Your task to perform on an android device: What's the weather going to be tomorrow? Image 0: 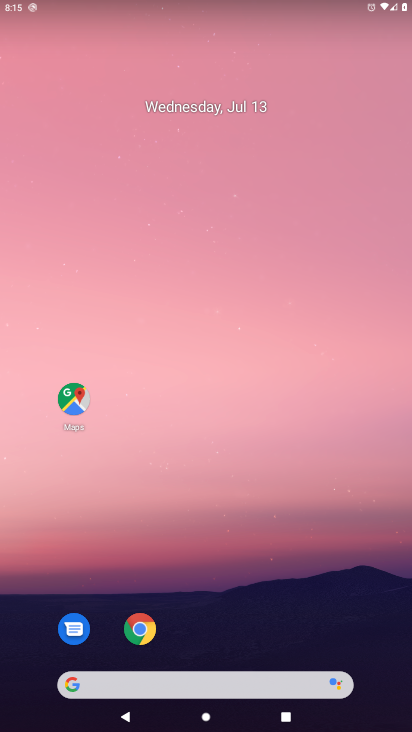
Step 0: click (114, 693)
Your task to perform on an android device: What's the weather going to be tomorrow? Image 1: 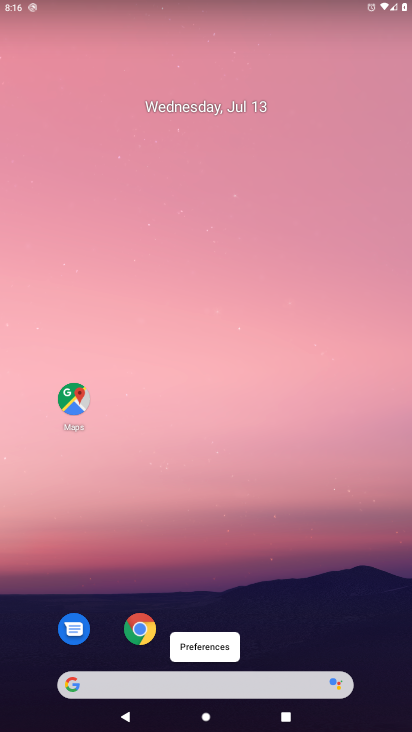
Step 1: click (117, 693)
Your task to perform on an android device: What's the weather going to be tomorrow? Image 2: 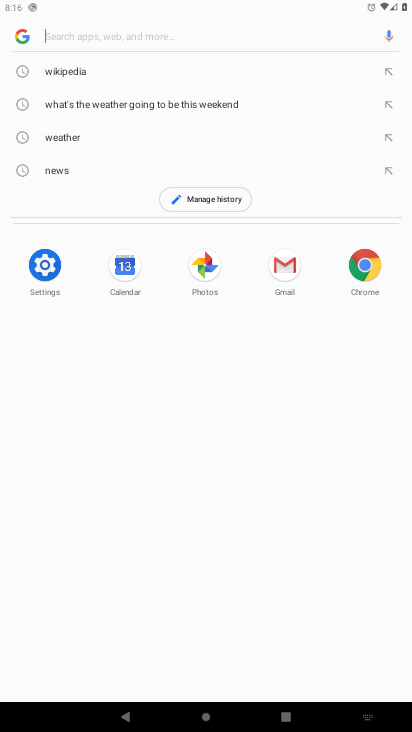
Step 2: type "What's the weather going to be tomorrow?"
Your task to perform on an android device: What's the weather going to be tomorrow? Image 3: 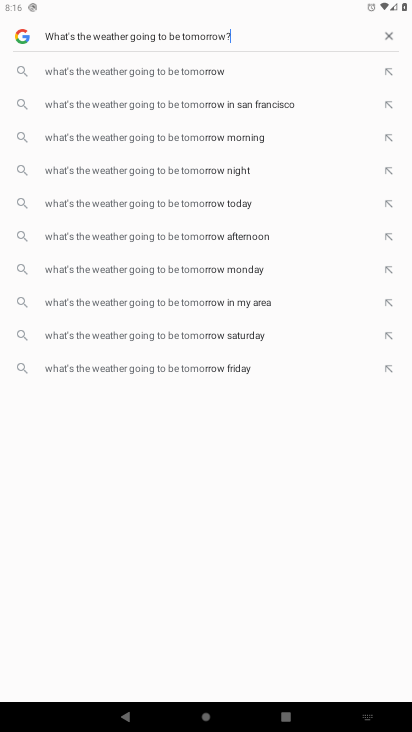
Step 3: type ""
Your task to perform on an android device: What's the weather going to be tomorrow? Image 4: 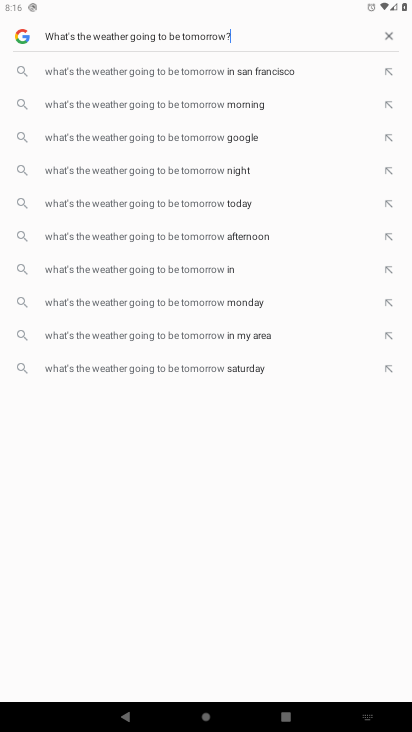
Step 4: type ""
Your task to perform on an android device: What's the weather going to be tomorrow? Image 5: 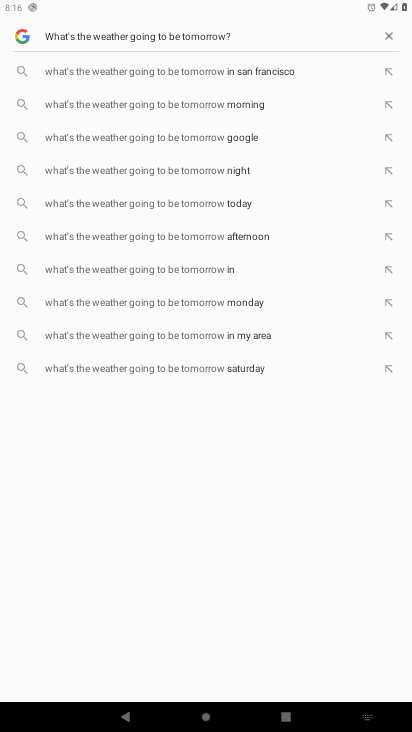
Step 5: task complete